Your task to perform on an android device: Go to notification settings Image 0: 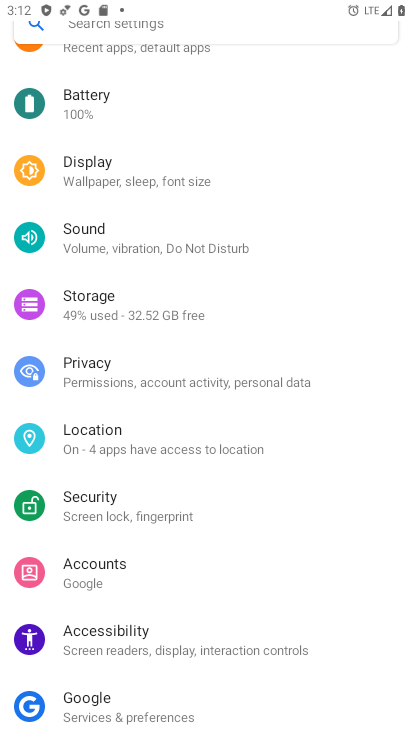
Step 0: drag from (87, 76) to (88, 408)
Your task to perform on an android device: Go to notification settings Image 1: 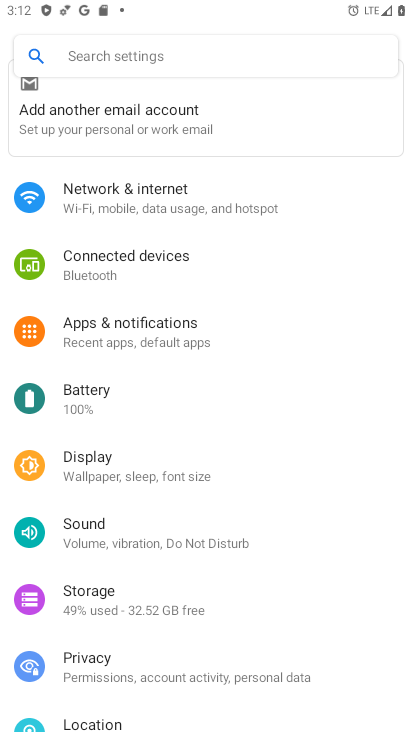
Step 1: click (116, 332)
Your task to perform on an android device: Go to notification settings Image 2: 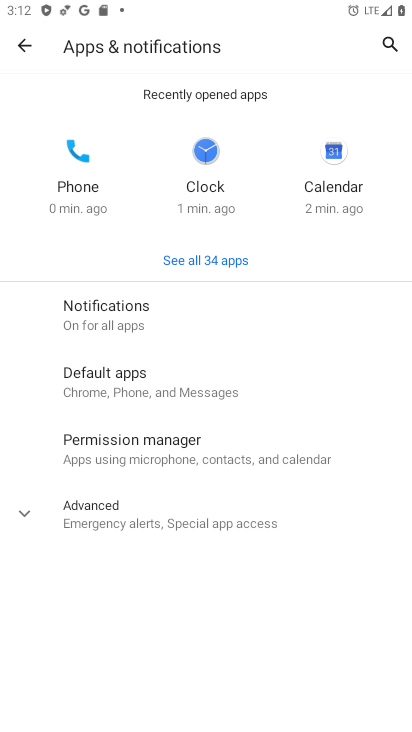
Step 2: task complete